Your task to perform on an android device: Do I have any events this weekend? Image 0: 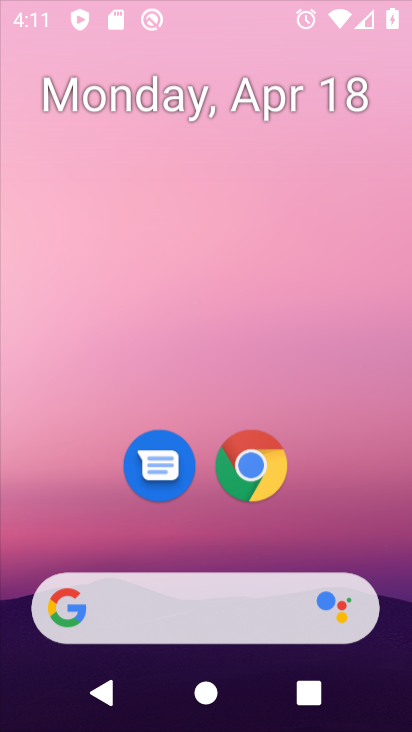
Step 0: click (249, 16)
Your task to perform on an android device: Do I have any events this weekend? Image 1: 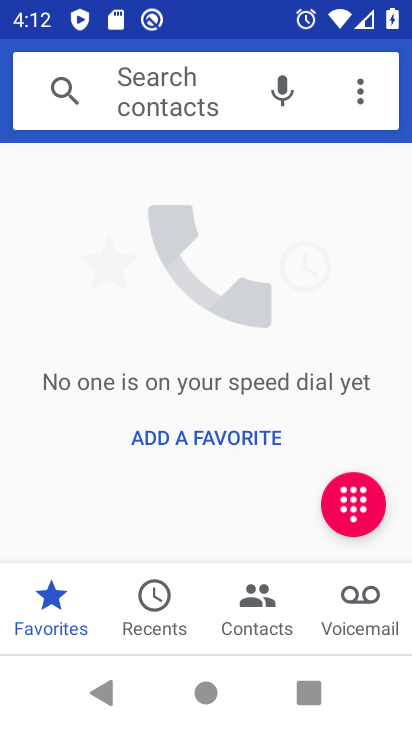
Step 1: press back button
Your task to perform on an android device: Do I have any events this weekend? Image 2: 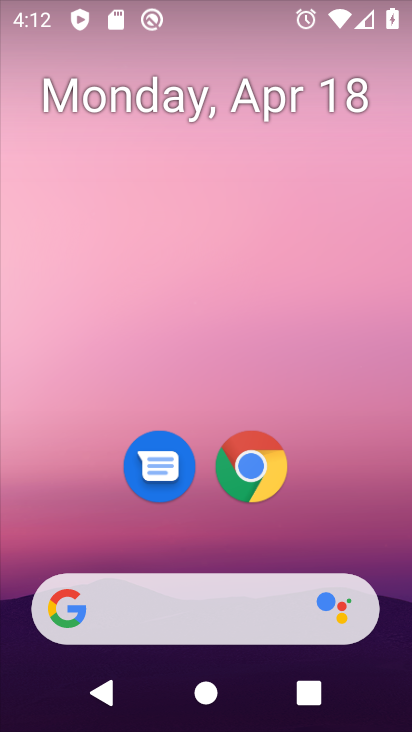
Step 2: drag from (374, 539) to (253, 0)
Your task to perform on an android device: Do I have any events this weekend? Image 3: 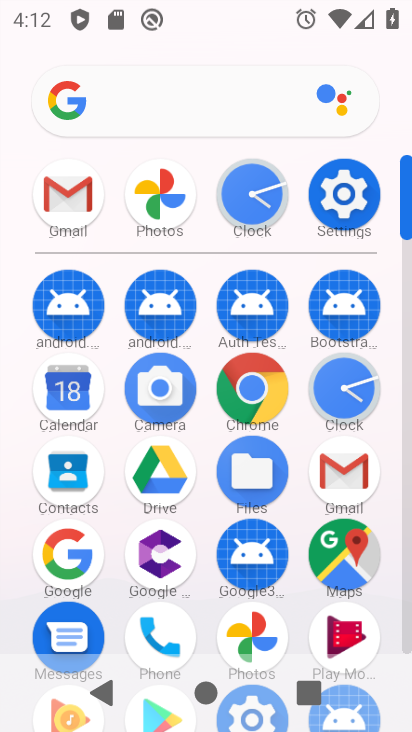
Step 3: drag from (6, 579) to (0, 318)
Your task to perform on an android device: Do I have any events this weekend? Image 4: 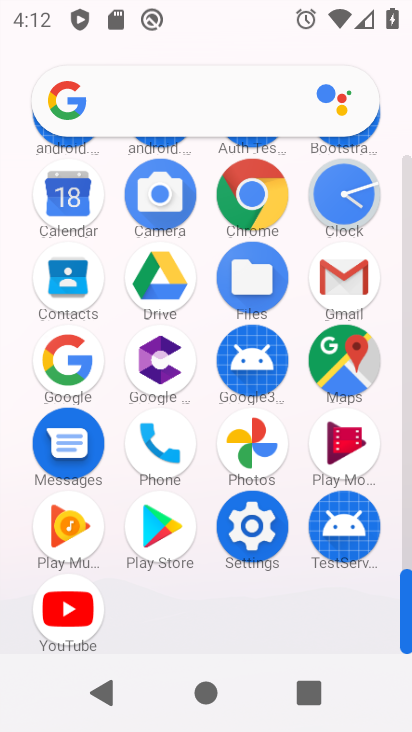
Step 4: drag from (15, 270) to (13, 451)
Your task to perform on an android device: Do I have any events this weekend? Image 5: 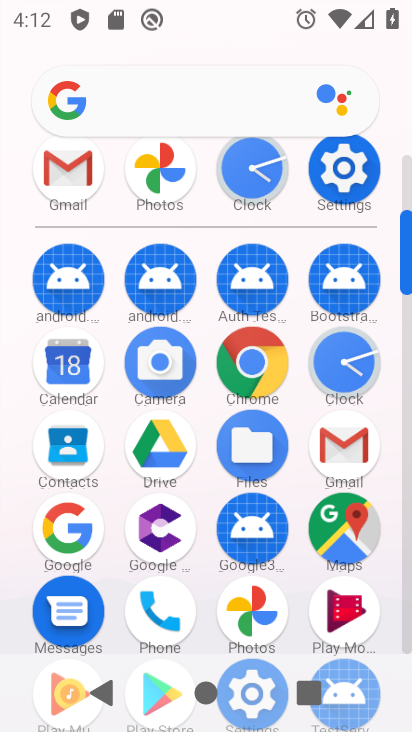
Step 5: drag from (11, 305) to (8, 429)
Your task to perform on an android device: Do I have any events this weekend? Image 6: 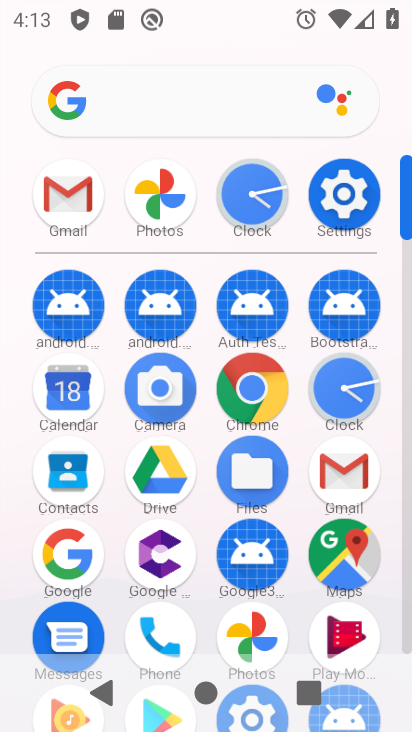
Step 6: drag from (3, 481) to (1, 349)
Your task to perform on an android device: Do I have any events this weekend? Image 7: 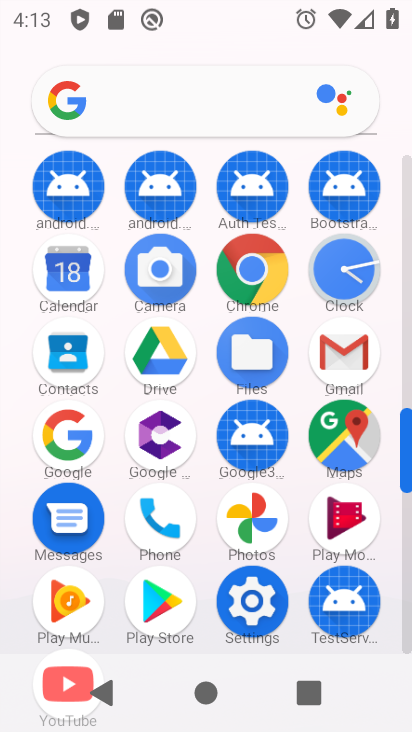
Step 7: click (61, 261)
Your task to perform on an android device: Do I have any events this weekend? Image 8: 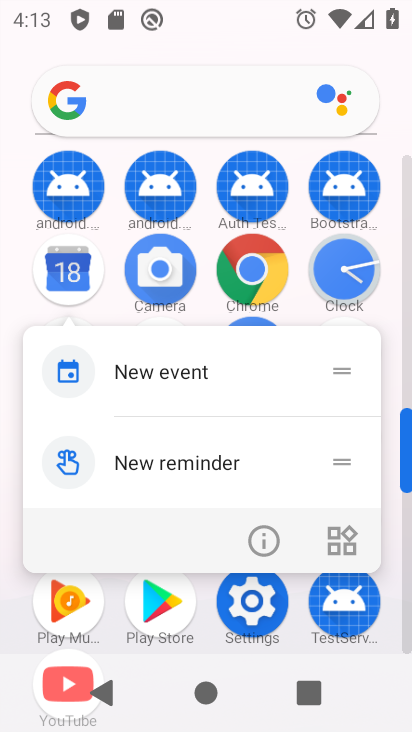
Step 8: click (9, 309)
Your task to perform on an android device: Do I have any events this weekend? Image 9: 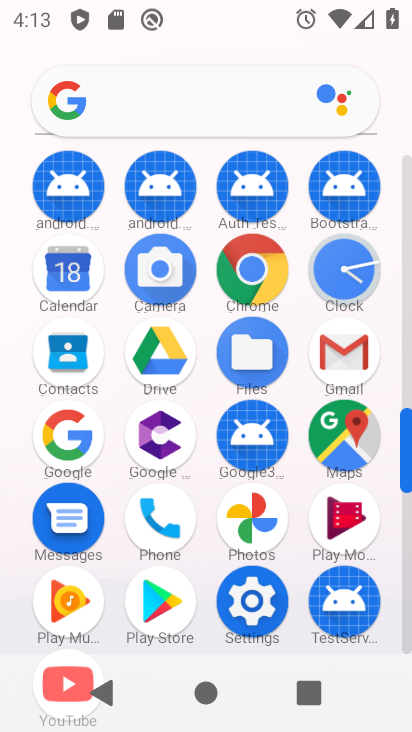
Step 9: click (71, 263)
Your task to perform on an android device: Do I have any events this weekend? Image 10: 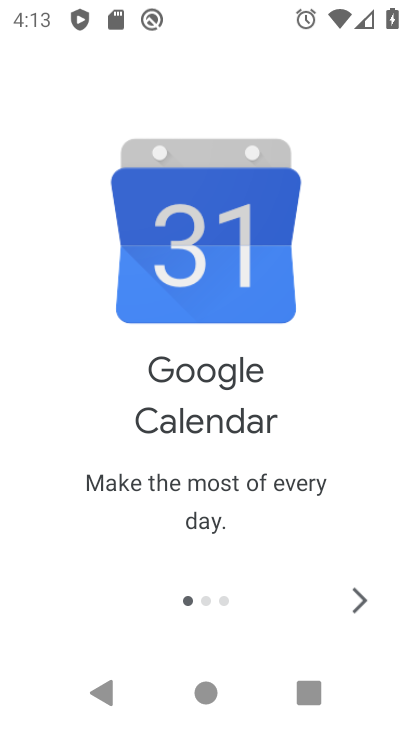
Step 10: click (350, 592)
Your task to perform on an android device: Do I have any events this weekend? Image 11: 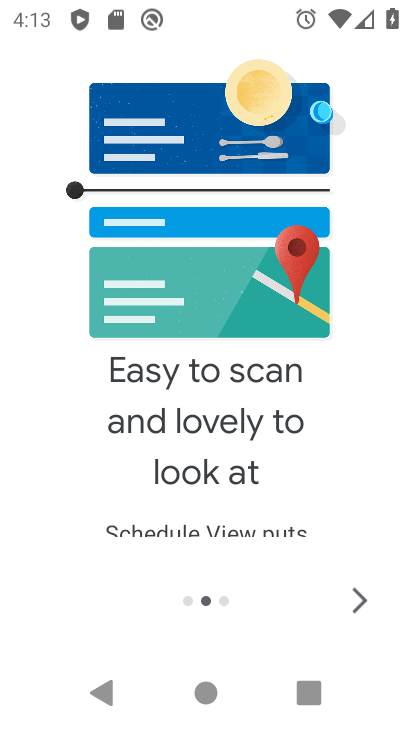
Step 11: click (350, 592)
Your task to perform on an android device: Do I have any events this weekend? Image 12: 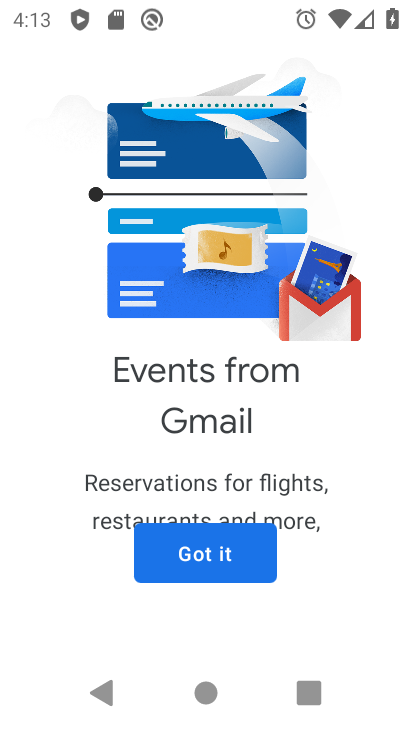
Step 12: click (199, 535)
Your task to perform on an android device: Do I have any events this weekend? Image 13: 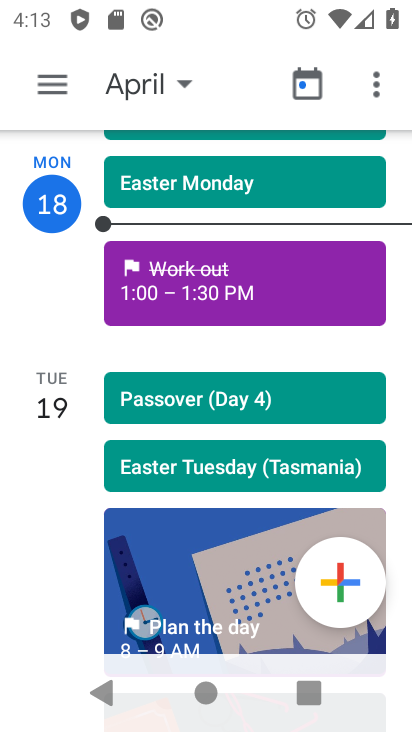
Step 13: click (68, 90)
Your task to perform on an android device: Do I have any events this weekend? Image 14: 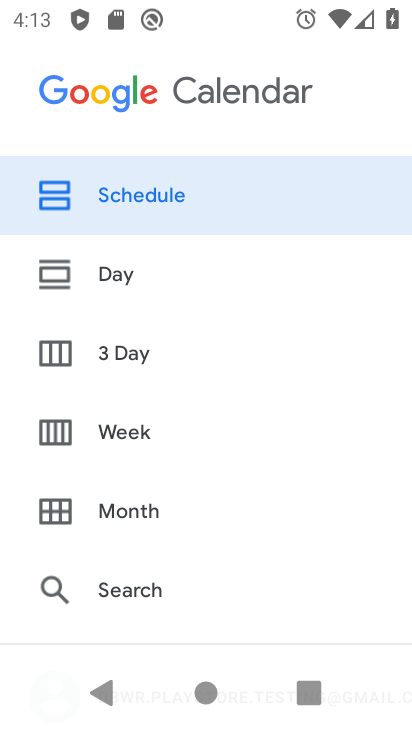
Step 14: click (167, 424)
Your task to perform on an android device: Do I have any events this weekend? Image 15: 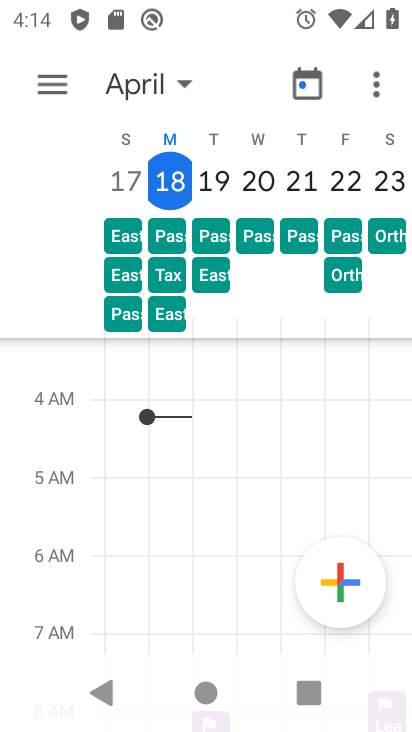
Step 15: task complete